Your task to perform on an android device: turn off improve location accuracy Image 0: 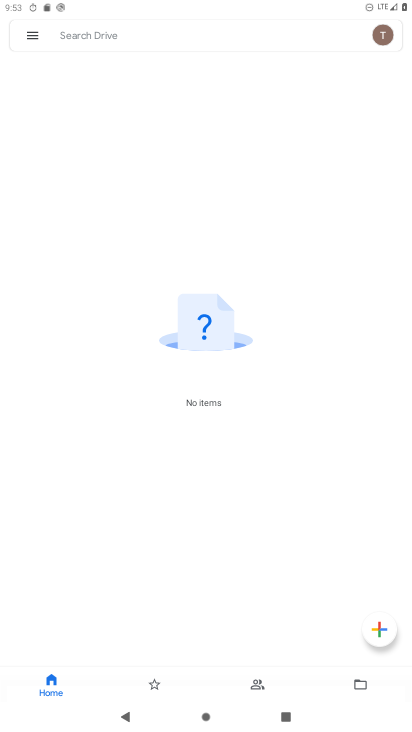
Step 0: drag from (197, 11) to (194, 606)
Your task to perform on an android device: turn off improve location accuracy Image 1: 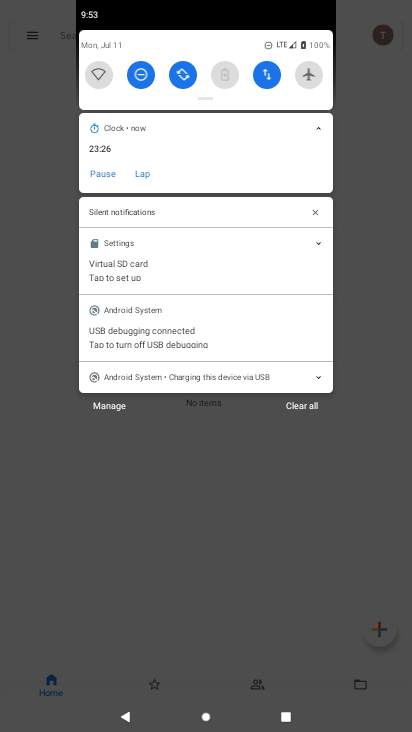
Step 1: drag from (201, 47) to (195, 586)
Your task to perform on an android device: turn off improve location accuracy Image 2: 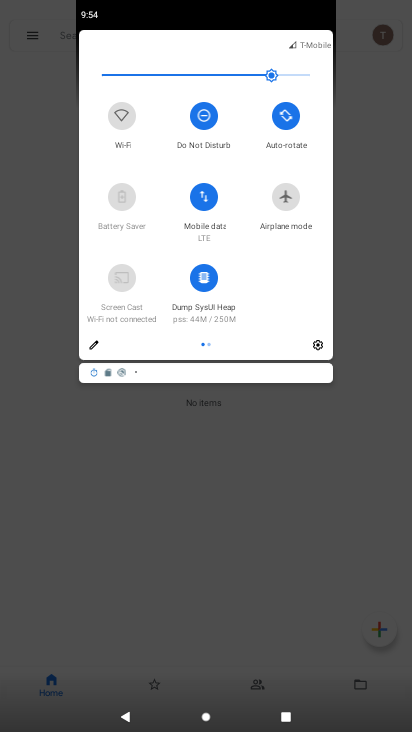
Step 2: click (318, 340)
Your task to perform on an android device: turn off improve location accuracy Image 3: 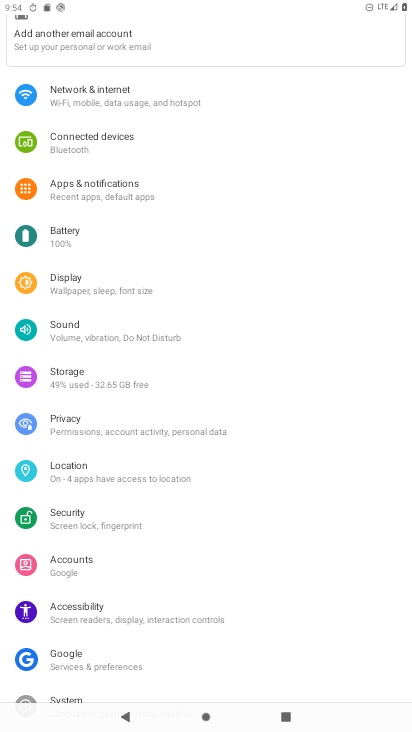
Step 3: click (113, 480)
Your task to perform on an android device: turn off improve location accuracy Image 4: 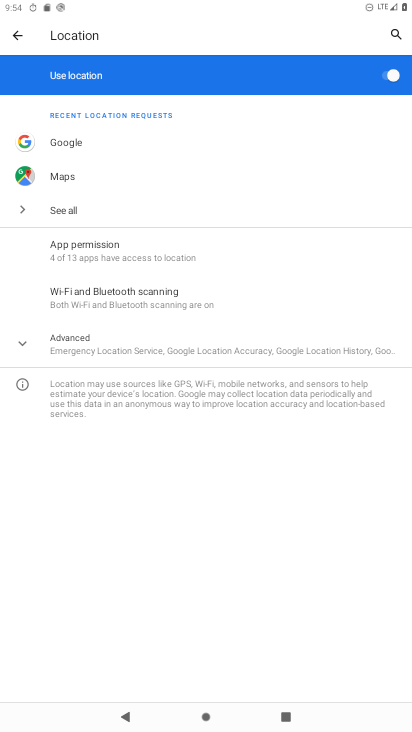
Step 4: click (174, 359)
Your task to perform on an android device: turn off improve location accuracy Image 5: 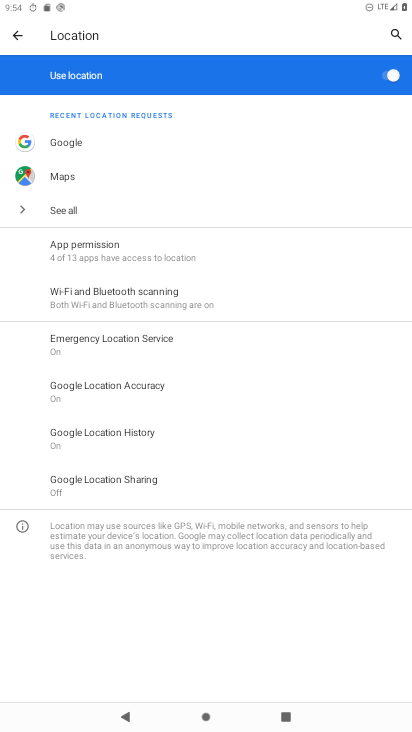
Step 5: click (199, 392)
Your task to perform on an android device: turn off improve location accuracy Image 6: 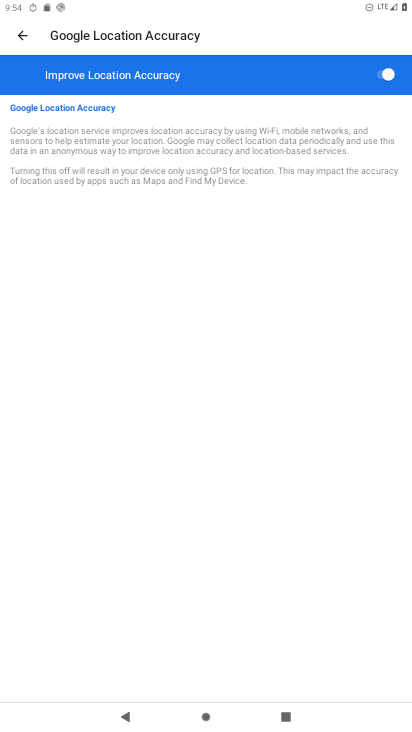
Step 6: click (388, 75)
Your task to perform on an android device: turn off improve location accuracy Image 7: 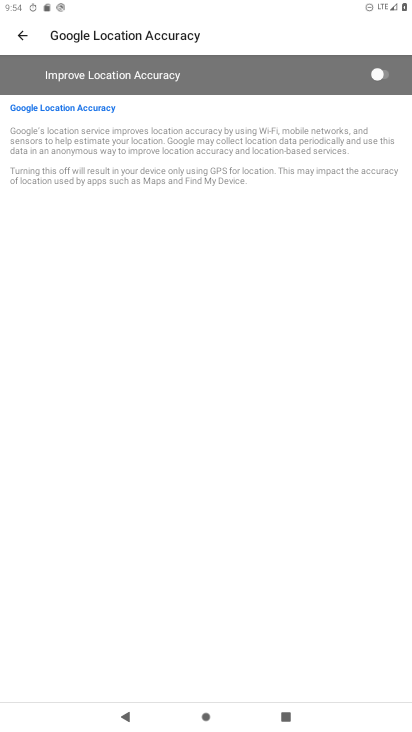
Step 7: task complete